Your task to perform on an android device: manage bookmarks in the chrome app Image 0: 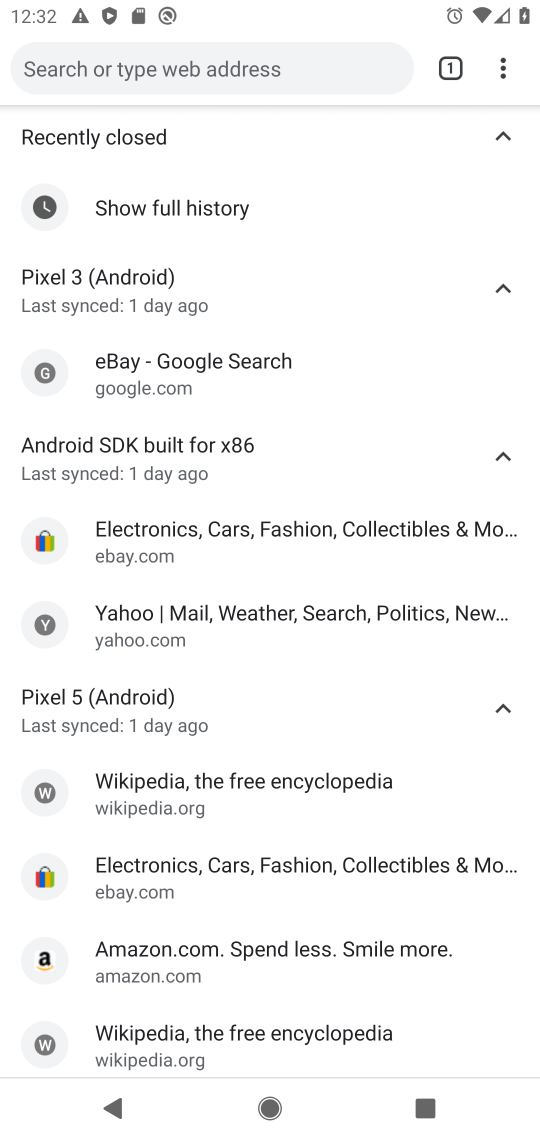
Step 0: click (504, 69)
Your task to perform on an android device: manage bookmarks in the chrome app Image 1: 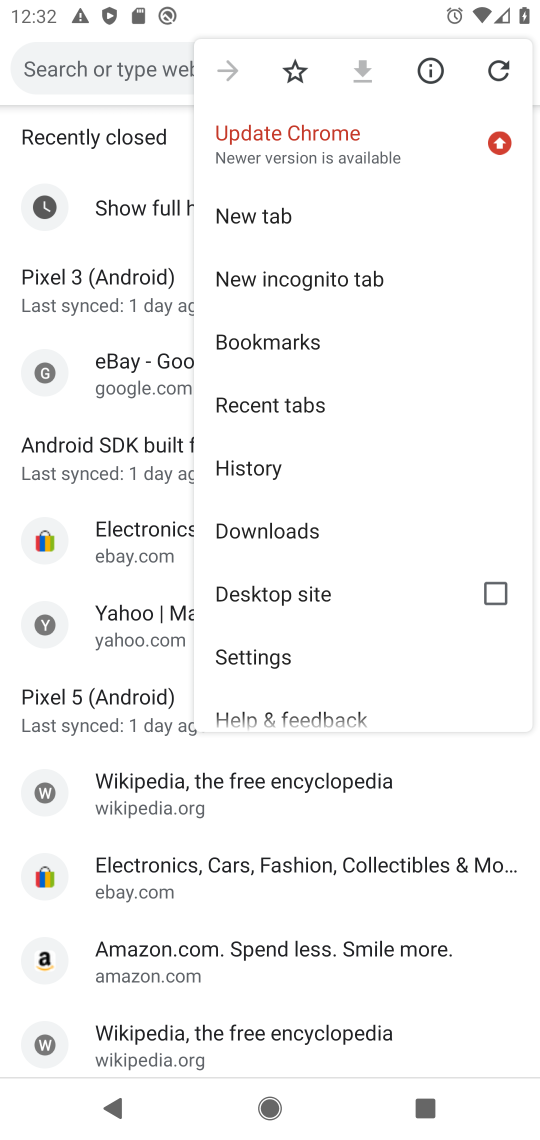
Step 1: click (297, 345)
Your task to perform on an android device: manage bookmarks in the chrome app Image 2: 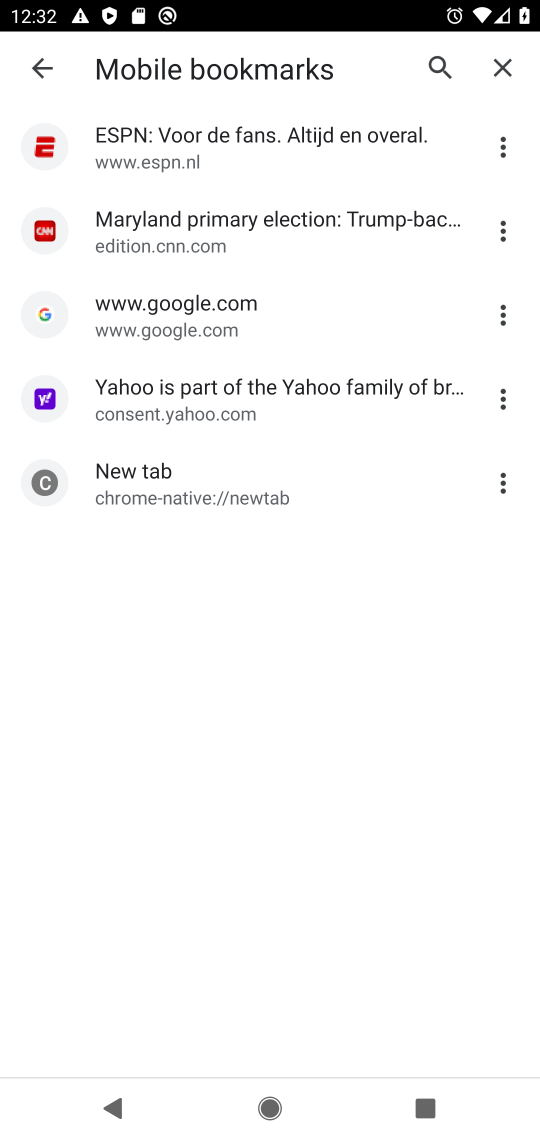
Step 2: click (506, 391)
Your task to perform on an android device: manage bookmarks in the chrome app Image 3: 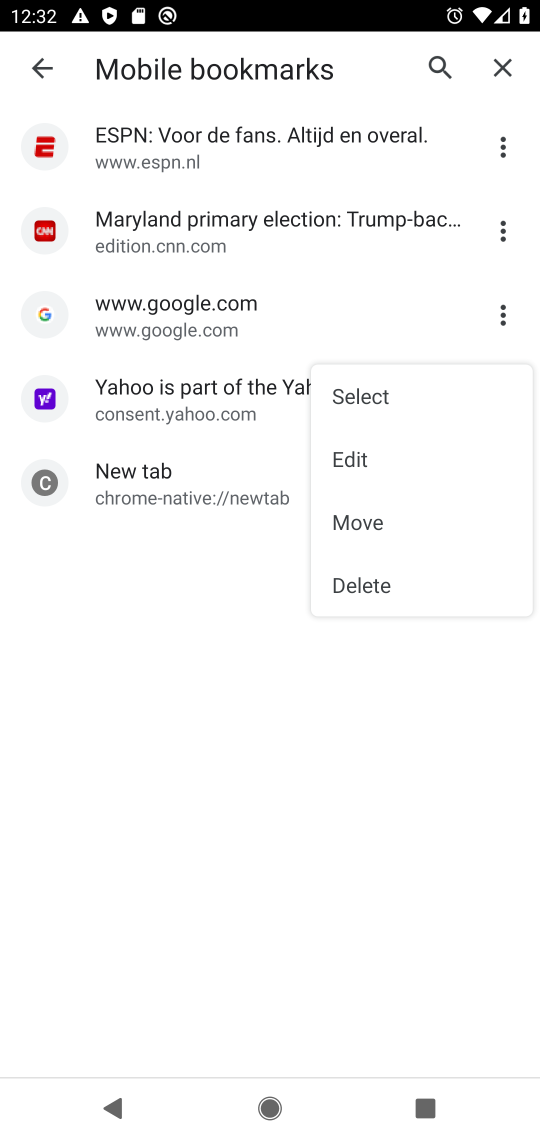
Step 3: click (411, 450)
Your task to perform on an android device: manage bookmarks in the chrome app Image 4: 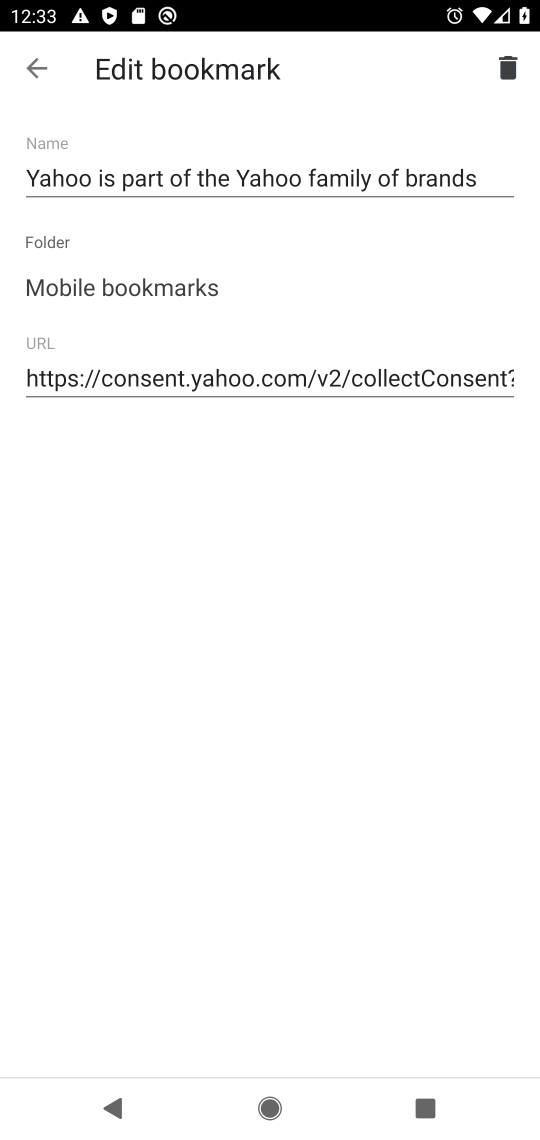
Step 4: task complete